Your task to perform on an android device: Open Google Maps and go to "Timeline" Image 0: 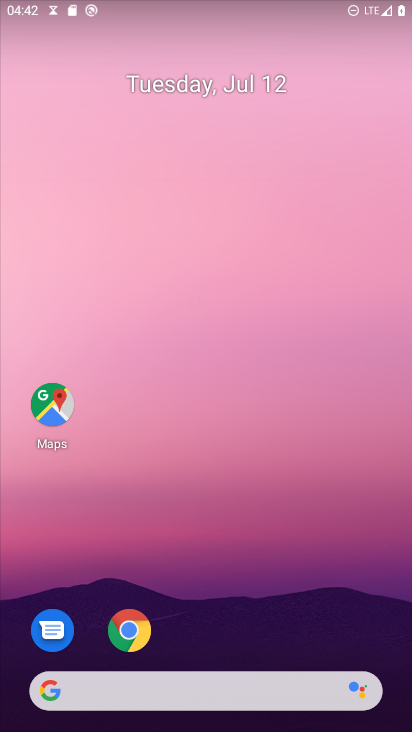
Step 0: drag from (172, 627) to (200, 60)
Your task to perform on an android device: Open Google Maps and go to "Timeline" Image 1: 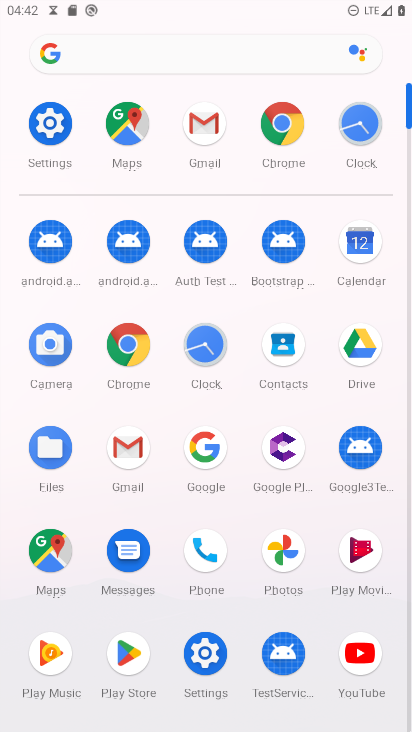
Step 1: click (53, 549)
Your task to perform on an android device: Open Google Maps and go to "Timeline" Image 2: 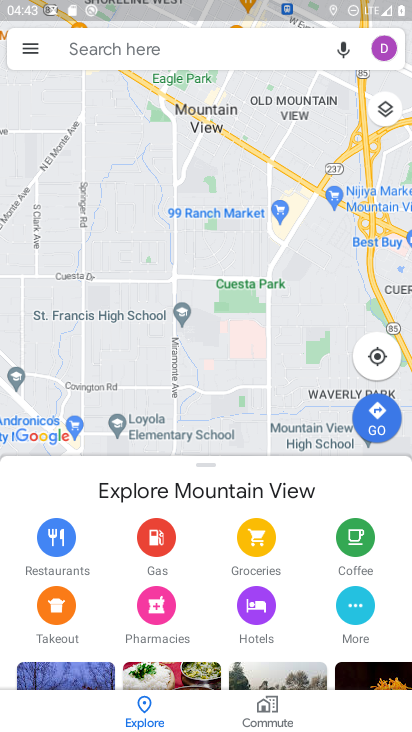
Step 2: click (37, 40)
Your task to perform on an android device: Open Google Maps and go to "Timeline" Image 3: 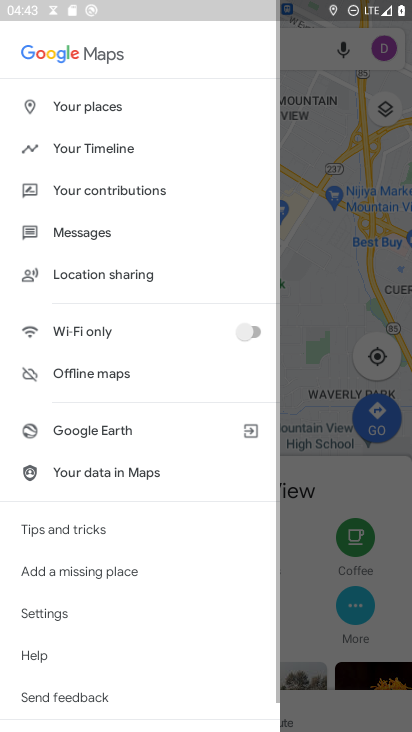
Step 3: click (32, 45)
Your task to perform on an android device: Open Google Maps and go to "Timeline" Image 4: 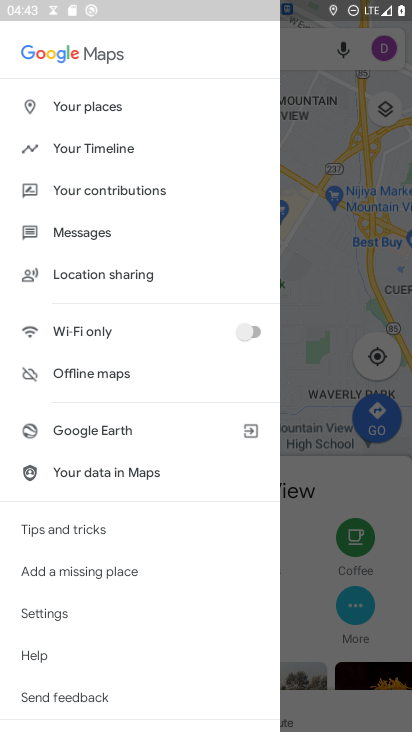
Step 4: click (116, 148)
Your task to perform on an android device: Open Google Maps and go to "Timeline" Image 5: 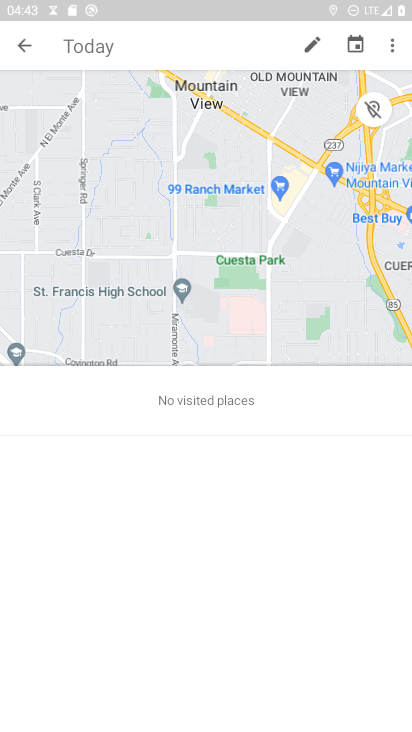
Step 5: task complete